Your task to perform on an android device: Open privacy settings Image 0: 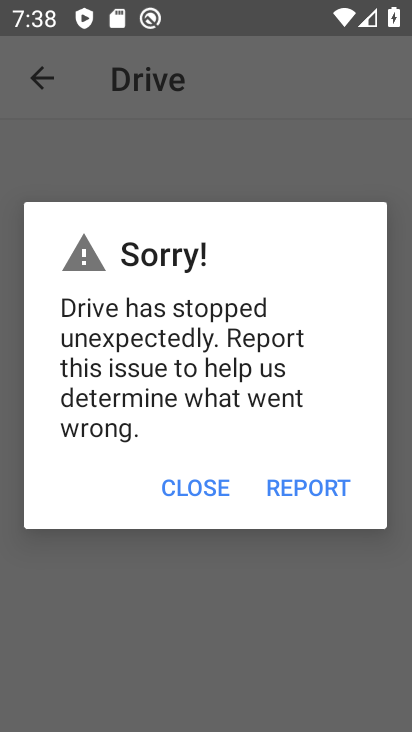
Step 0: click (199, 485)
Your task to perform on an android device: Open privacy settings Image 1: 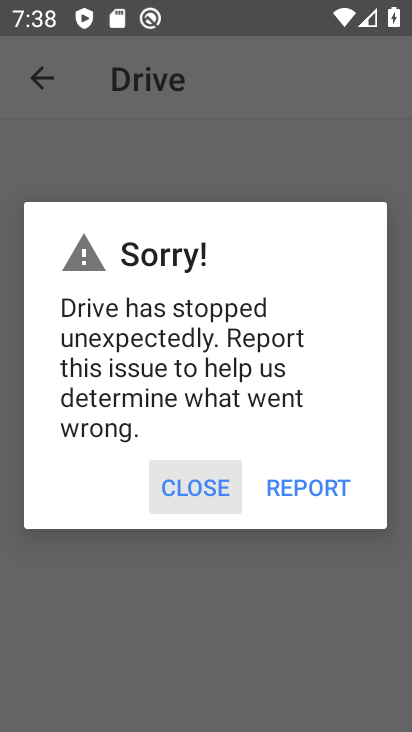
Step 1: click (176, 506)
Your task to perform on an android device: Open privacy settings Image 2: 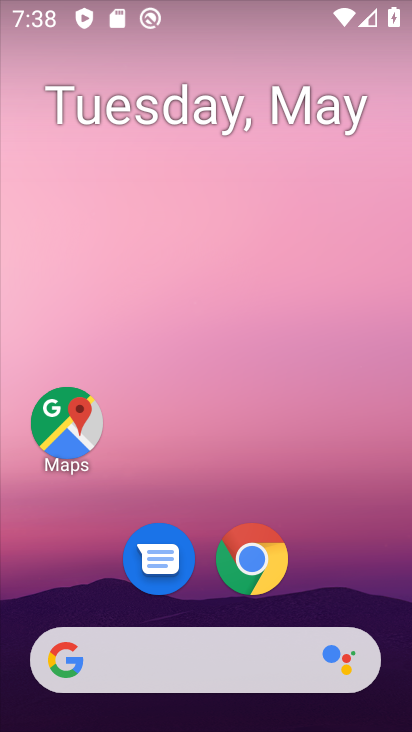
Step 2: drag from (261, 444) to (203, 264)
Your task to perform on an android device: Open privacy settings Image 3: 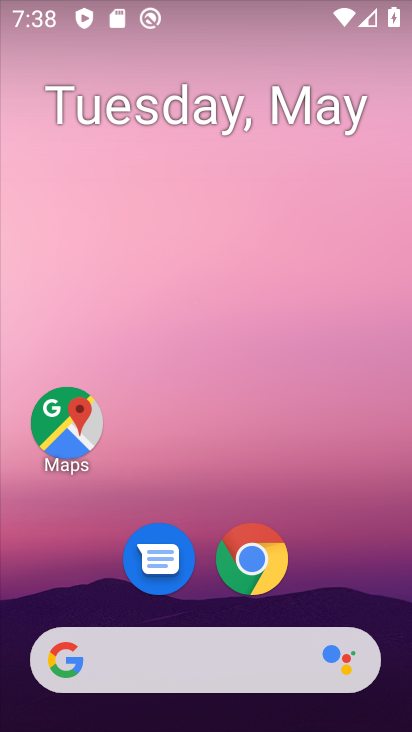
Step 3: drag from (327, 566) to (177, 255)
Your task to perform on an android device: Open privacy settings Image 4: 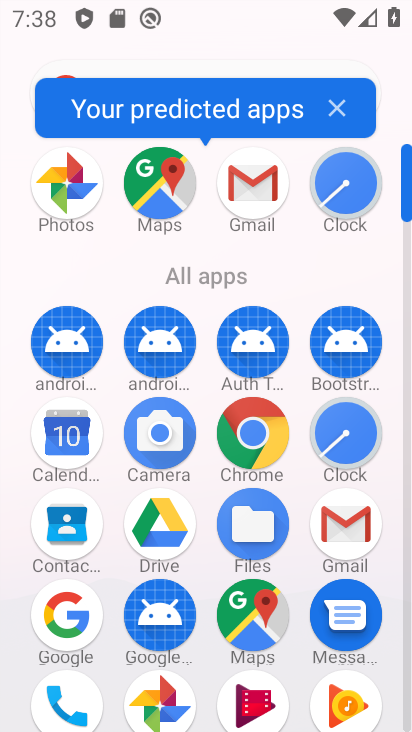
Step 4: drag from (281, 475) to (212, 94)
Your task to perform on an android device: Open privacy settings Image 5: 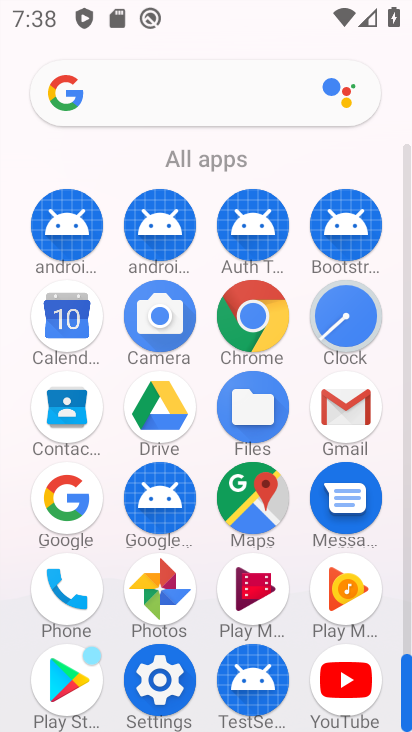
Step 5: click (163, 682)
Your task to perform on an android device: Open privacy settings Image 6: 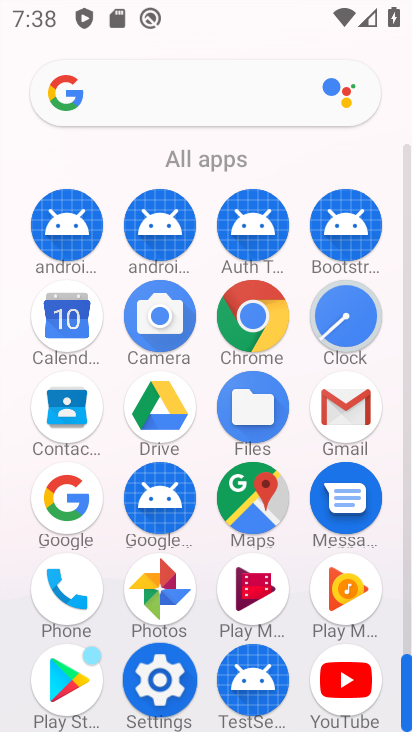
Step 6: click (163, 682)
Your task to perform on an android device: Open privacy settings Image 7: 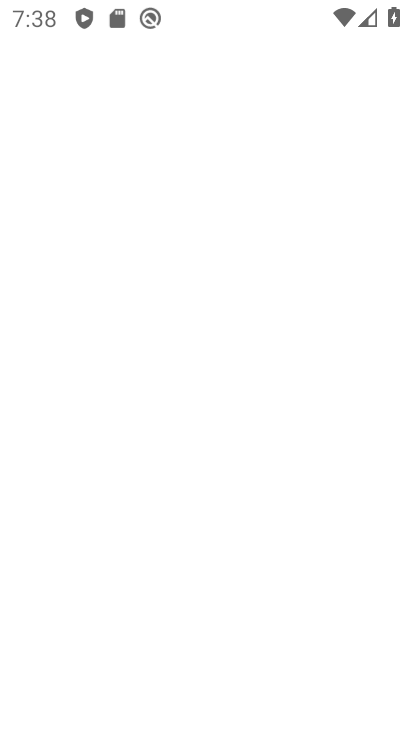
Step 7: click (163, 682)
Your task to perform on an android device: Open privacy settings Image 8: 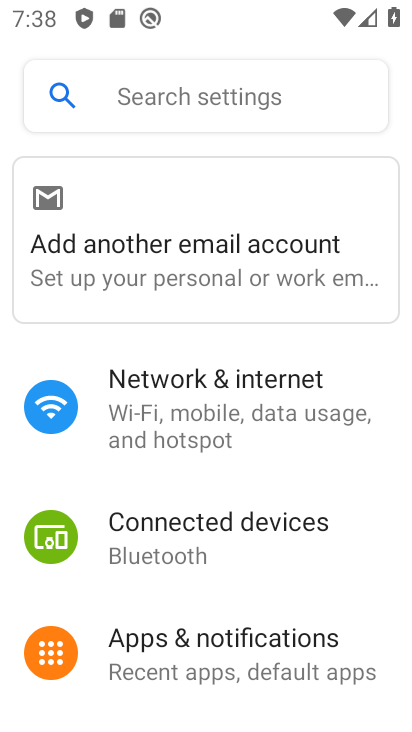
Step 8: drag from (179, 551) to (176, 197)
Your task to perform on an android device: Open privacy settings Image 9: 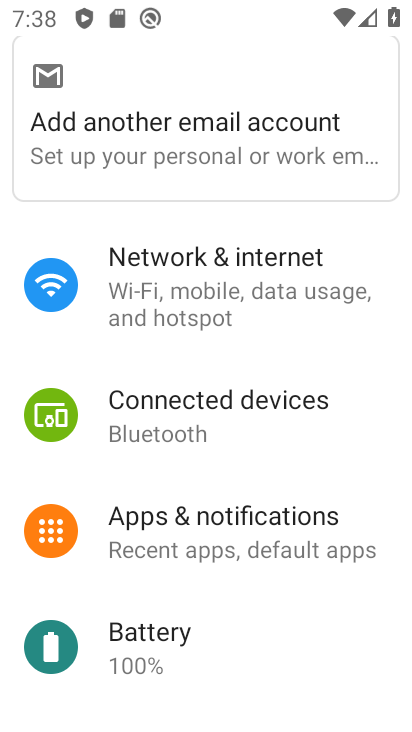
Step 9: drag from (164, 414) to (165, 262)
Your task to perform on an android device: Open privacy settings Image 10: 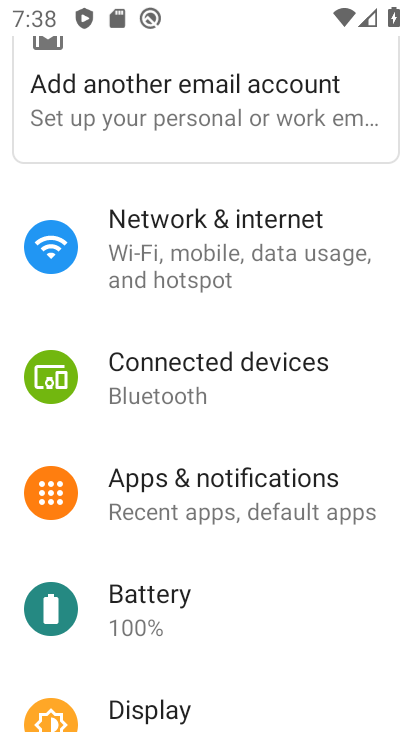
Step 10: drag from (181, 570) to (187, 284)
Your task to perform on an android device: Open privacy settings Image 11: 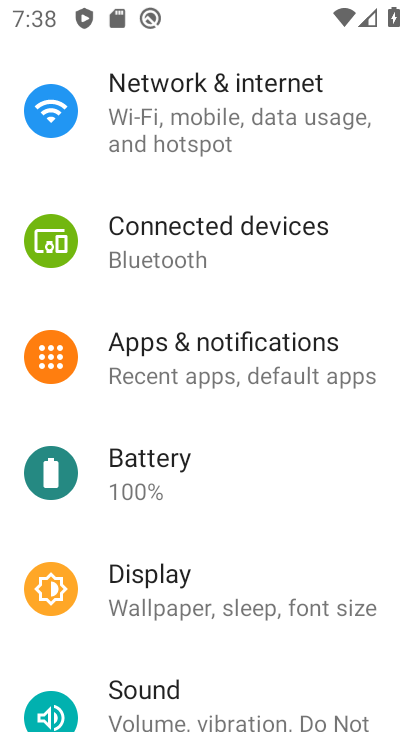
Step 11: drag from (176, 476) to (176, 235)
Your task to perform on an android device: Open privacy settings Image 12: 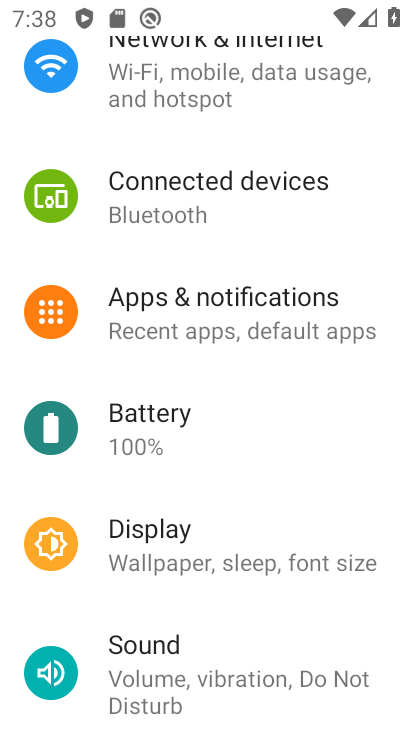
Step 12: drag from (176, 515) to (176, 230)
Your task to perform on an android device: Open privacy settings Image 13: 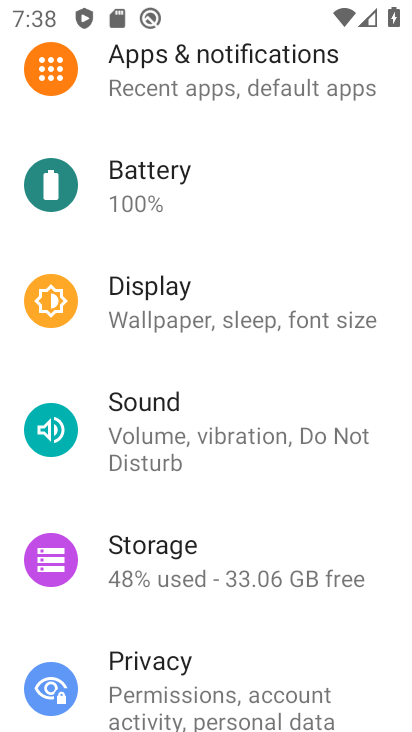
Step 13: drag from (204, 531) to (197, 100)
Your task to perform on an android device: Open privacy settings Image 14: 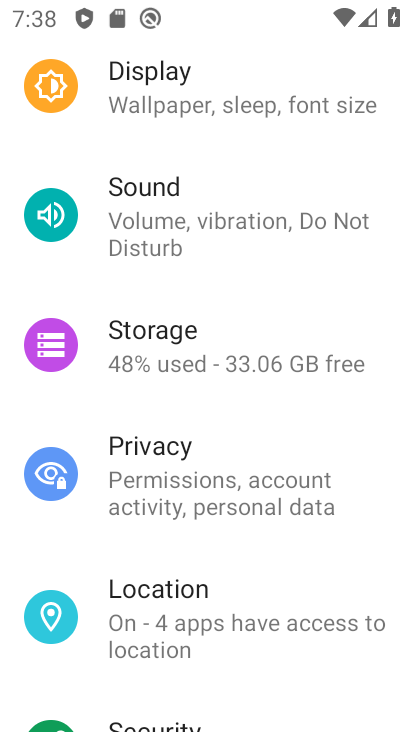
Step 14: click (161, 467)
Your task to perform on an android device: Open privacy settings Image 15: 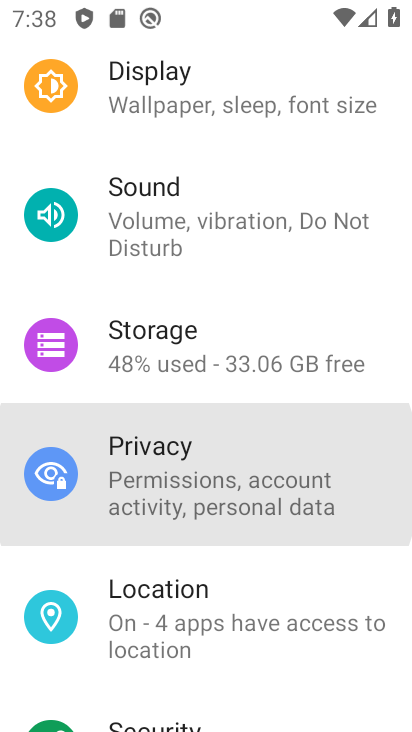
Step 15: click (161, 467)
Your task to perform on an android device: Open privacy settings Image 16: 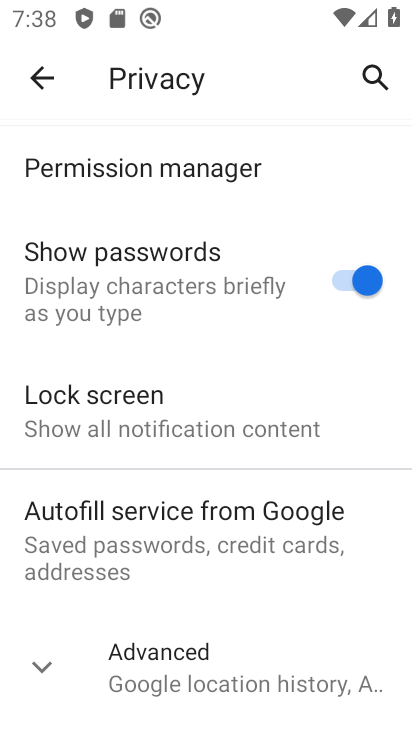
Step 16: click (161, 460)
Your task to perform on an android device: Open privacy settings Image 17: 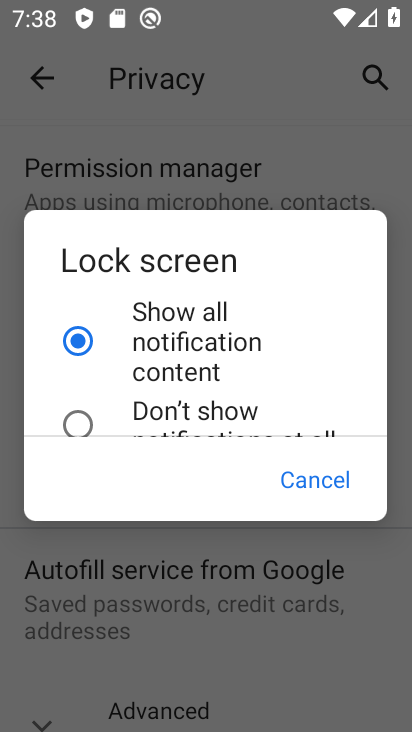
Step 17: click (308, 484)
Your task to perform on an android device: Open privacy settings Image 18: 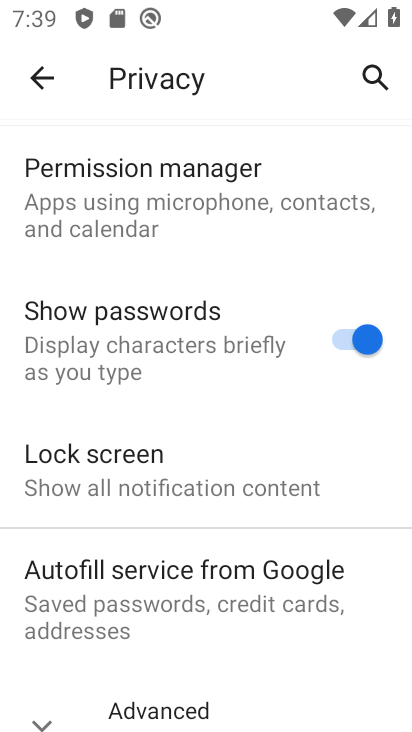
Step 18: task complete